Your task to perform on an android device: allow notifications from all sites in the chrome app Image 0: 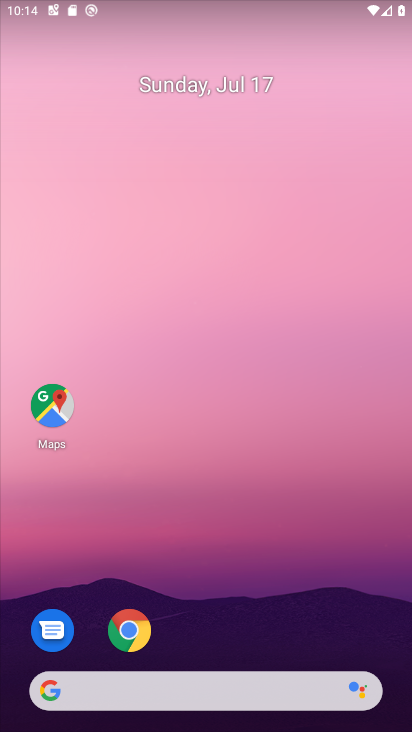
Step 0: click (131, 633)
Your task to perform on an android device: allow notifications from all sites in the chrome app Image 1: 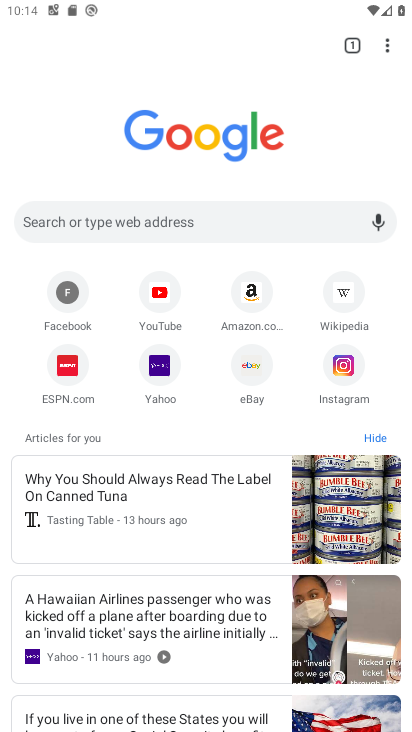
Step 1: click (391, 49)
Your task to perform on an android device: allow notifications from all sites in the chrome app Image 2: 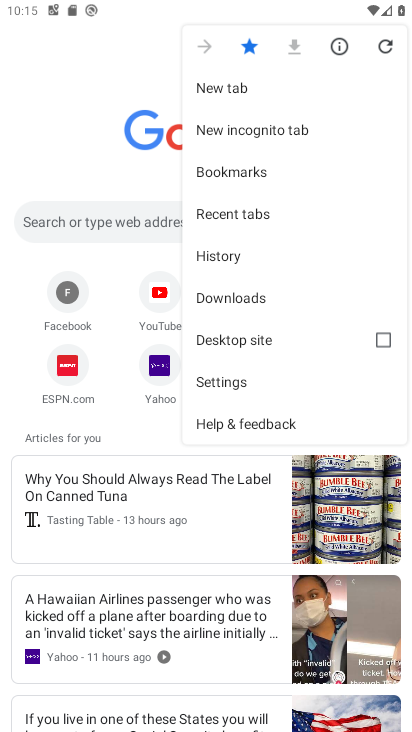
Step 2: click (238, 385)
Your task to perform on an android device: allow notifications from all sites in the chrome app Image 3: 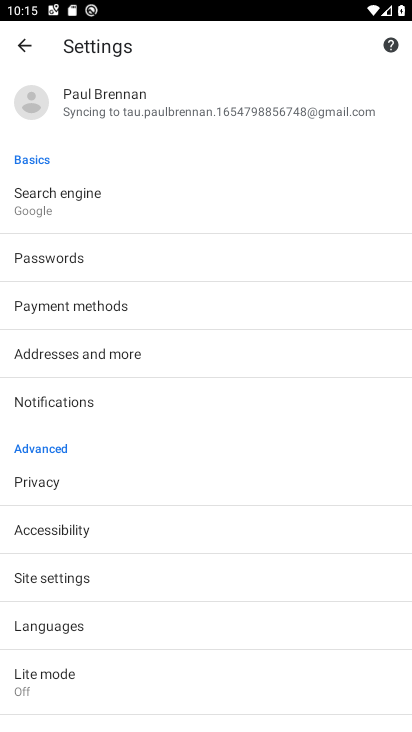
Step 3: click (194, 406)
Your task to perform on an android device: allow notifications from all sites in the chrome app Image 4: 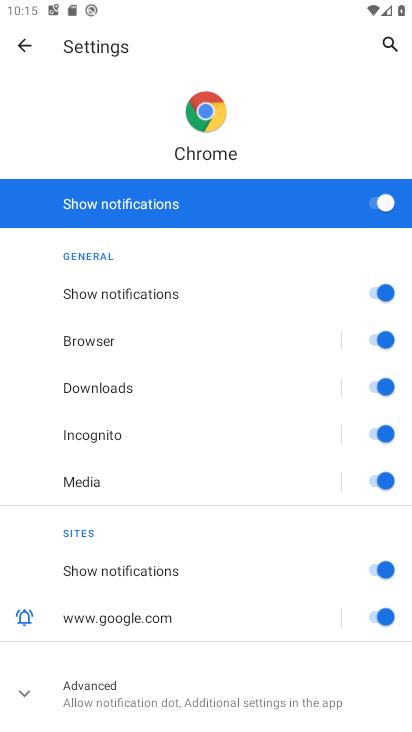
Step 4: task complete